Your task to perform on an android device: toggle data saver in the chrome app Image 0: 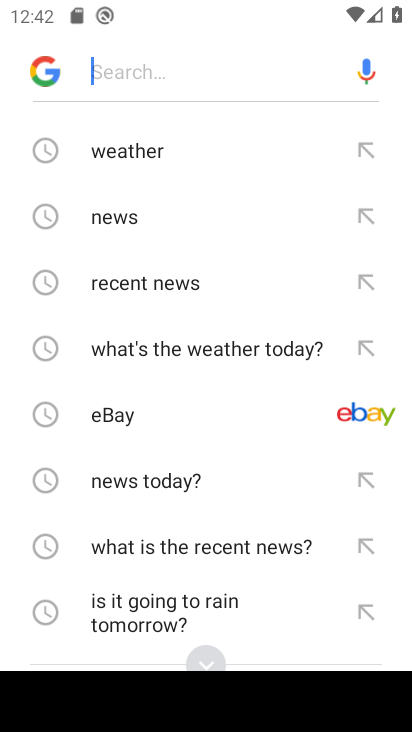
Step 0: press home button
Your task to perform on an android device: toggle data saver in the chrome app Image 1: 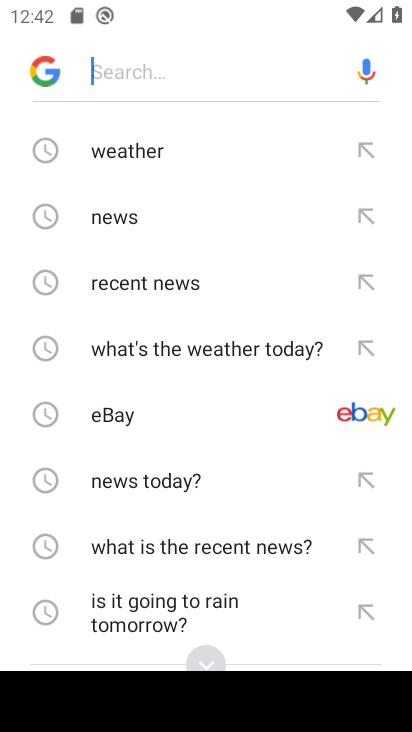
Step 1: press home button
Your task to perform on an android device: toggle data saver in the chrome app Image 2: 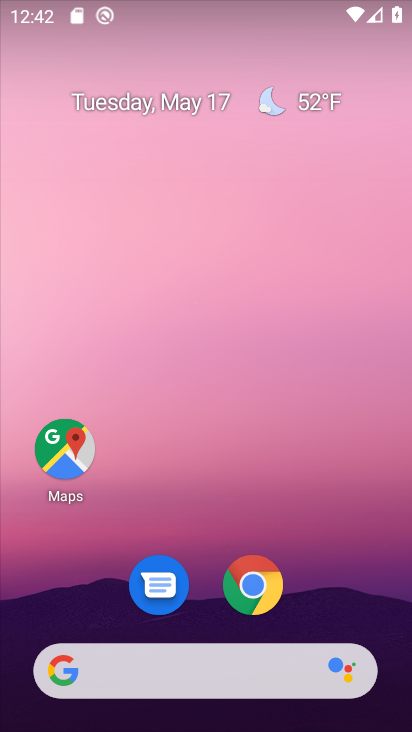
Step 2: click (256, 575)
Your task to perform on an android device: toggle data saver in the chrome app Image 3: 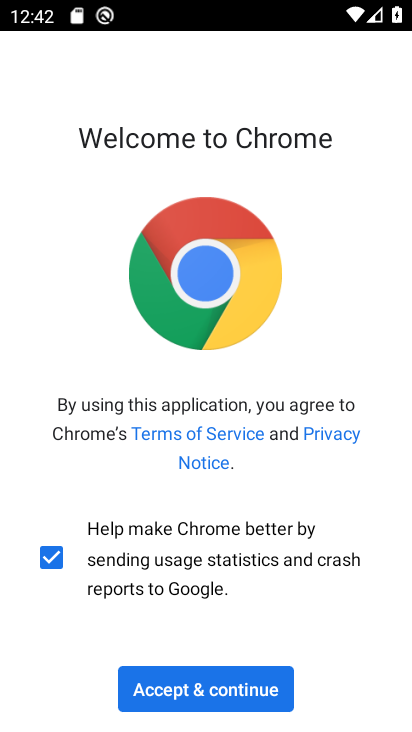
Step 3: click (267, 679)
Your task to perform on an android device: toggle data saver in the chrome app Image 4: 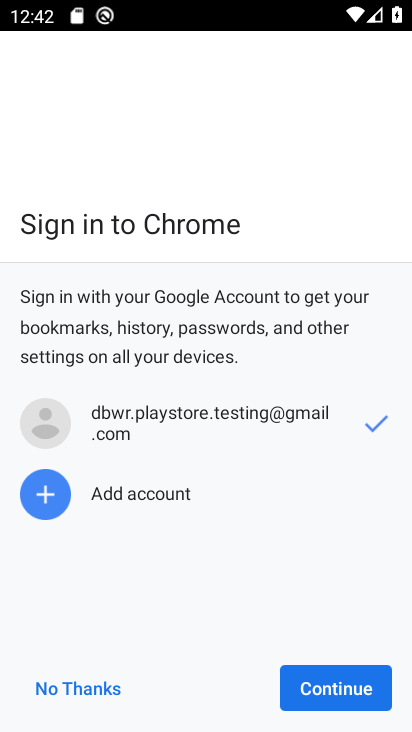
Step 4: click (303, 686)
Your task to perform on an android device: toggle data saver in the chrome app Image 5: 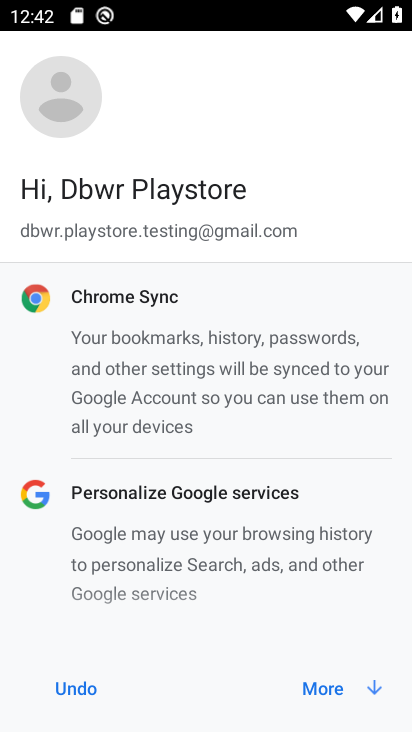
Step 5: click (326, 690)
Your task to perform on an android device: toggle data saver in the chrome app Image 6: 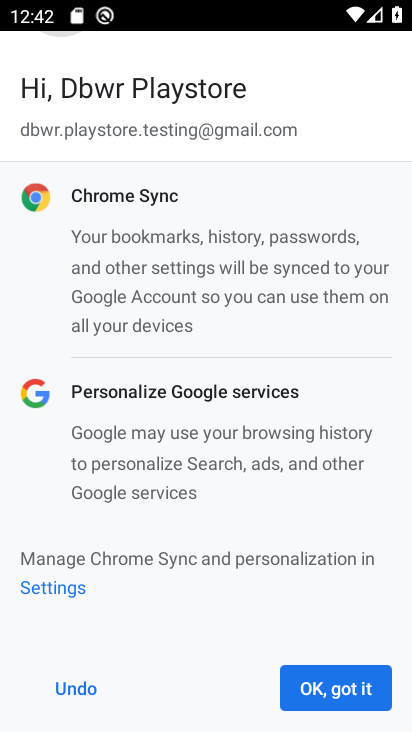
Step 6: click (326, 690)
Your task to perform on an android device: toggle data saver in the chrome app Image 7: 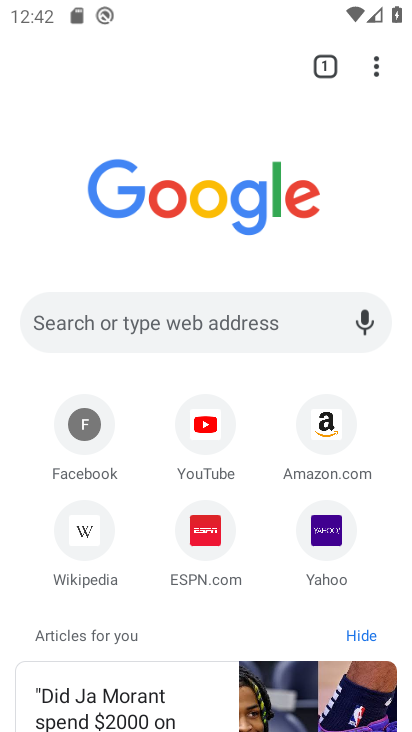
Step 7: click (370, 65)
Your task to perform on an android device: toggle data saver in the chrome app Image 8: 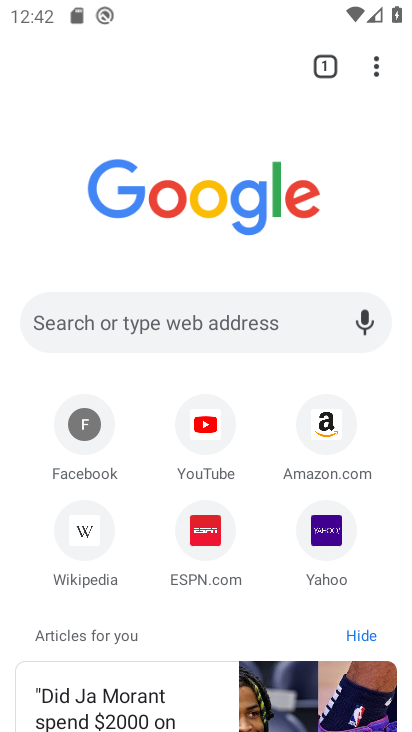
Step 8: click (370, 65)
Your task to perform on an android device: toggle data saver in the chrome app Image 9: 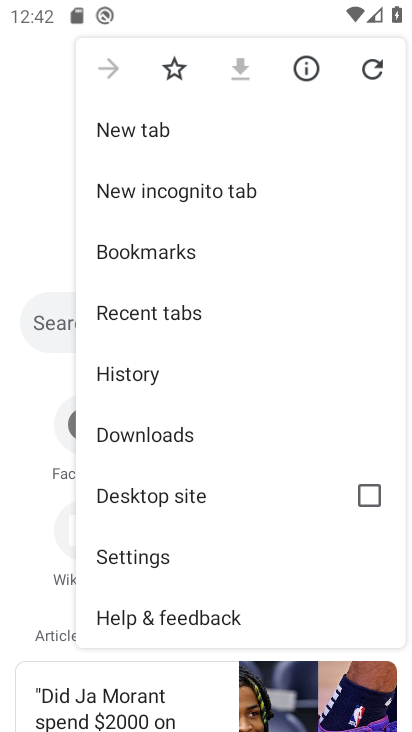
Step 9: click (170, 554)
Your task to perform on an android device: toggle data saver in the chrome app Image 10: 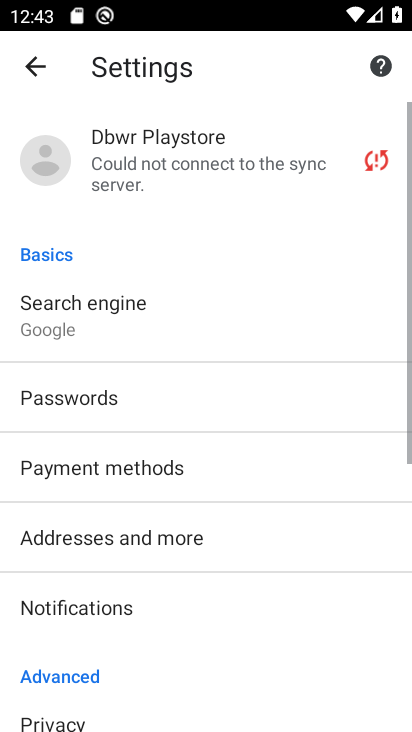
Step 10: drag from (257, 537) to (281, 85)
Your task to perform on an android device: toggle data saver in the chrome app Image 11: 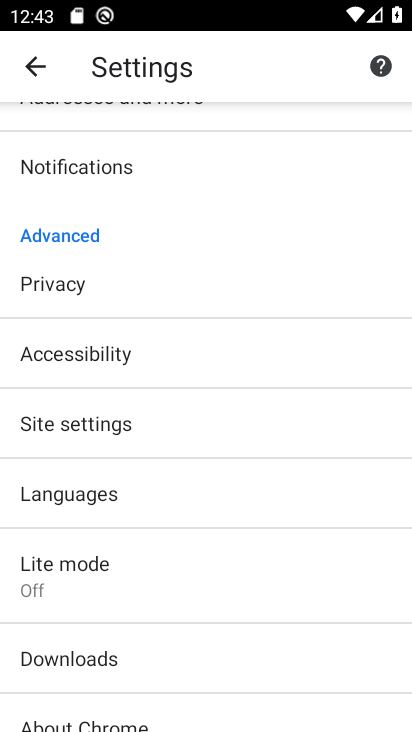
Step 11: click (200, 581)
Your task to perform on an android device: toggle data saver in the chrome app Image 12: 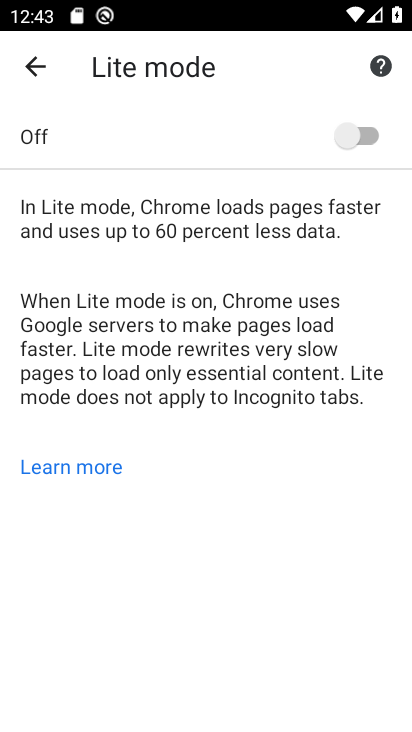
Step 12: click (360, 134)
Your task to perform on an android device: toggle data saver in the chrome app Image 13: 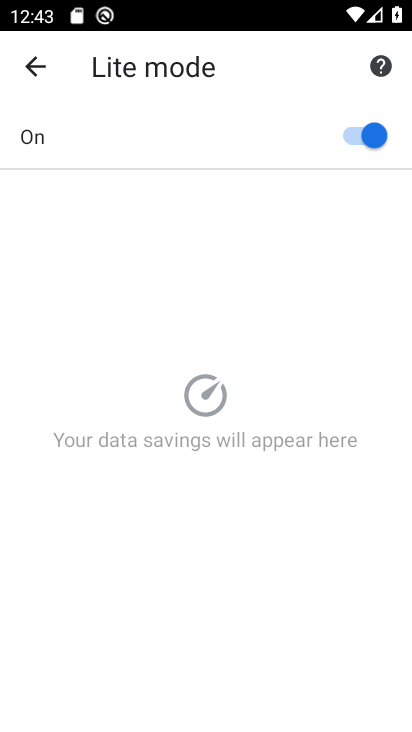
Step 13: task complete